Your task to perform on an android device: turn vacation reply on in the gmail app Image 0: 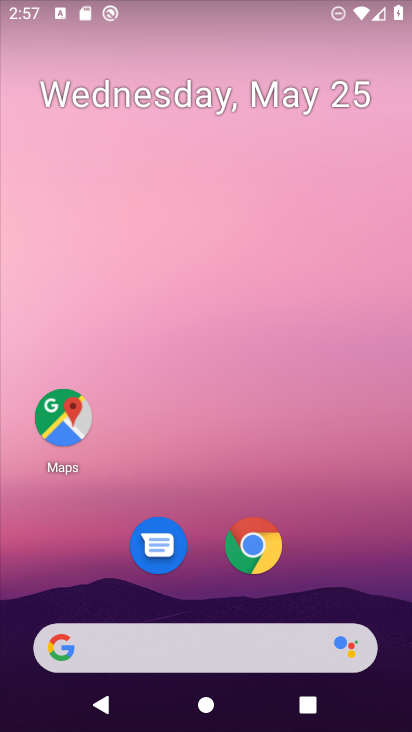
Step 0: drag from (375, 578) to (275, 16)
Your task to perform on an android device: turn vacation reply on in the gmail app Image 1: 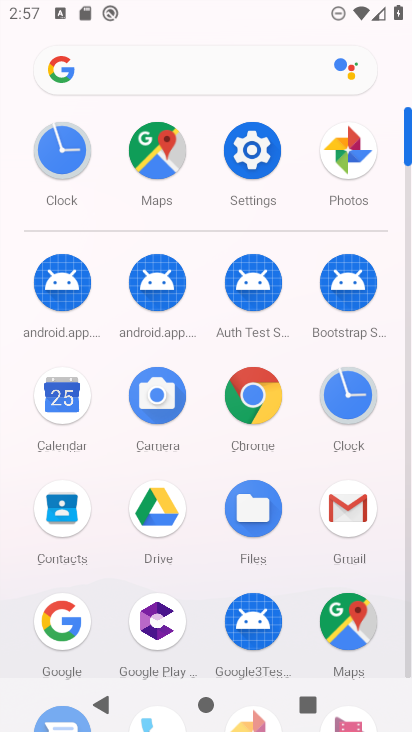
Step 1: click (348, 503)
Your task to perform on an android device: turn vacation reply on in the gmail app Image 2: 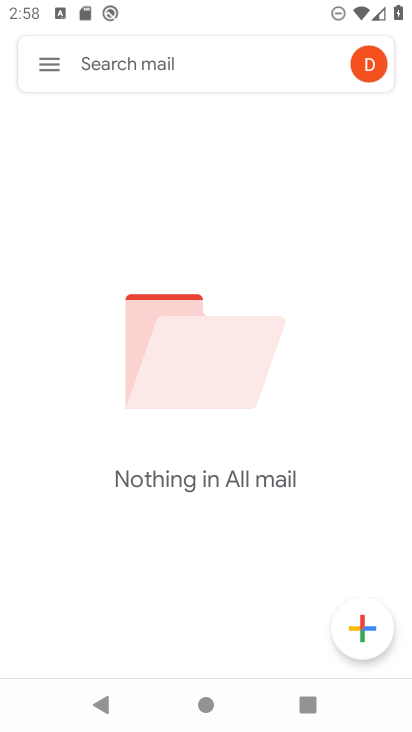
Step 2: click (50, 72)
Your task to perform on an android device: turn vacation reply on in the gmail app Image 3: 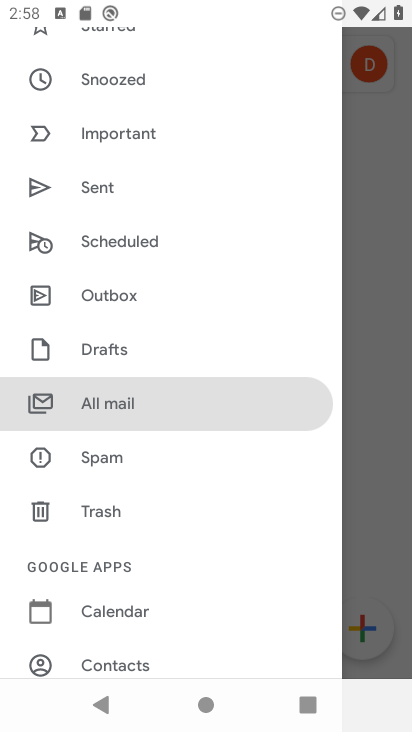
Step 3: drag from (135, 624) to (135, 159)
Your task to perform on an android device: turn vacation reply on in the gmail app Image 4: 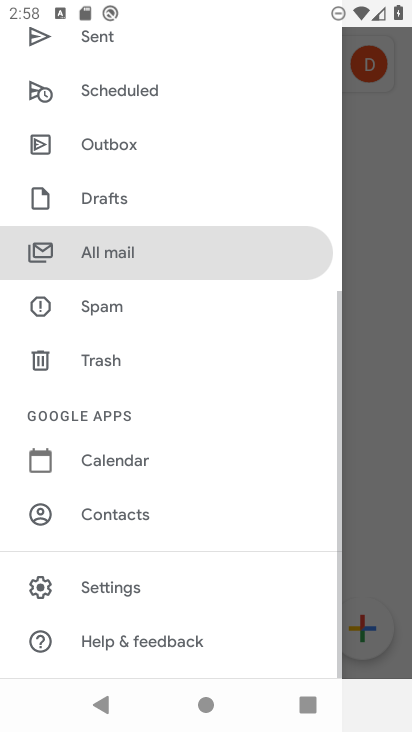
Step 4: click (152, 582)
Your task to perform on an android device: turn vacation reply on in the gmail app Image 5: 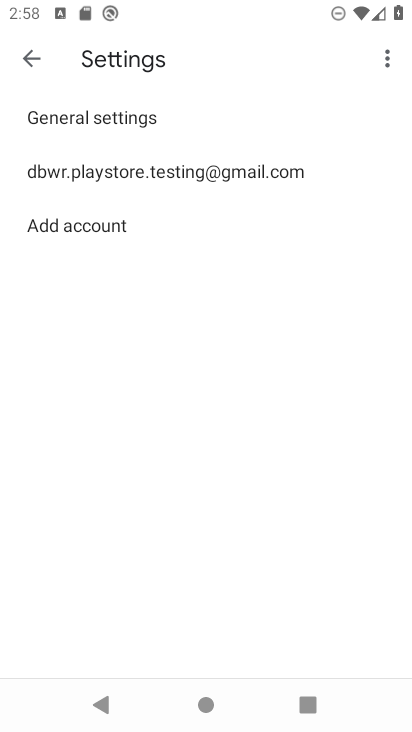
Step 5: click (85, 164)
Your task to perform on an android device: turn vacation reply on in the gmail app Image 6: 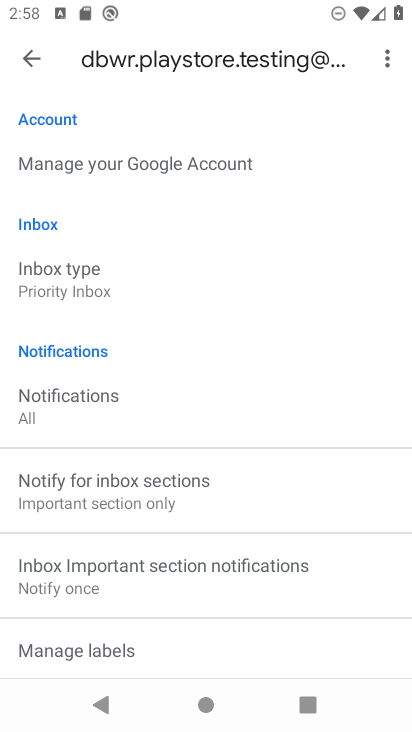
Step 6: task complete